Your task to perform on an android device: Open calendar and show me the fourth week of next month Image 0: 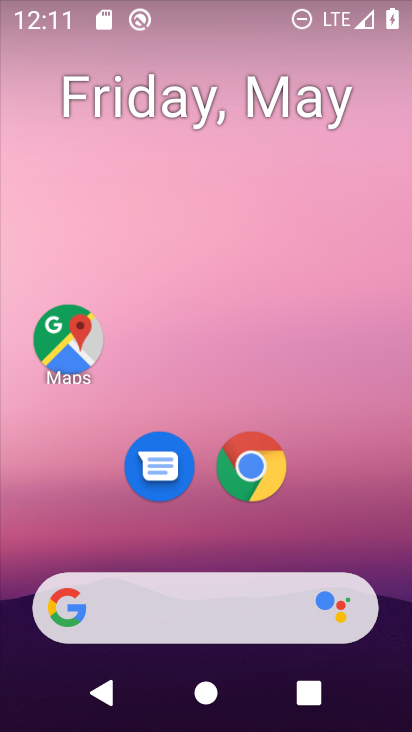
Step 0: drag from (328, 601) to (343, 16)
Your task to perform on an android device: Open calendar and show me the fourth week of next month Image 1: 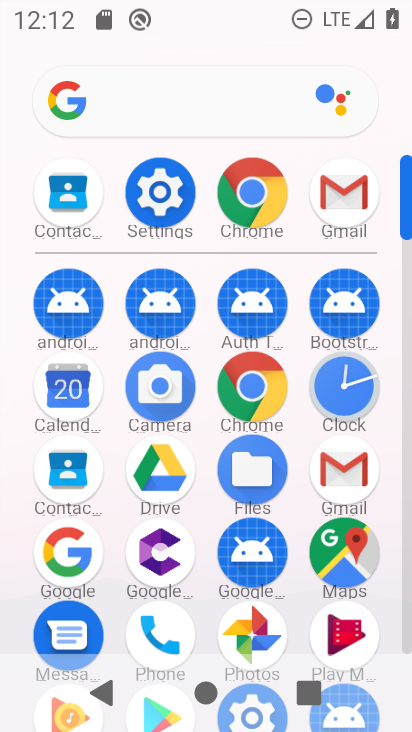
Step 1: click (79, 391)
Your task to perform on an android device: Open calendar and show me the fourth week of next month Image 2: 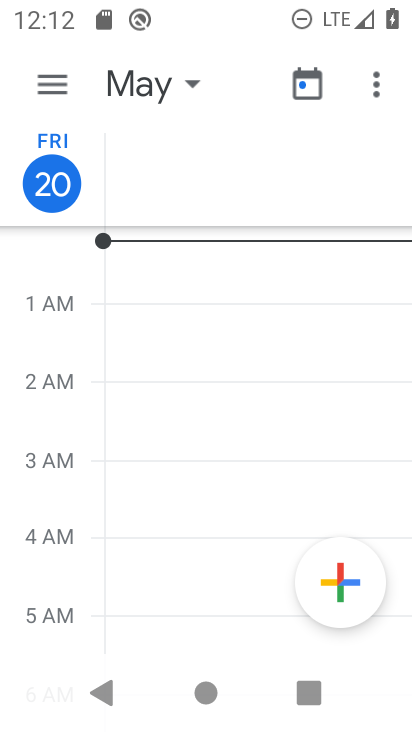
Step 2: click (199, 82)
Your task to perform on an android device: Open calendar and show me the fourth week of next month Image 3: 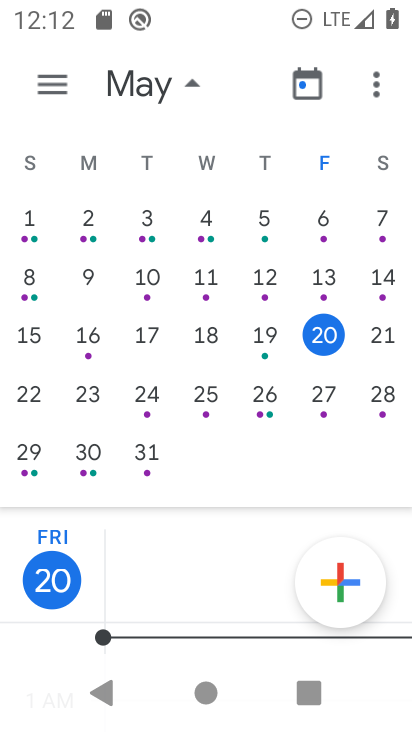
Step 3: drag from (376, 335) to (2, 368)
Your task to perform on an android device: Open calendar and show me the fourth week of next month Image 4: 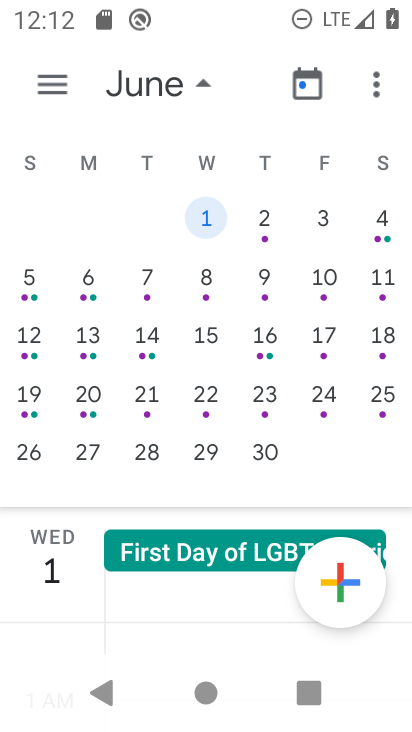
Step 4: click (269, 391)
Your task to perform on an android device: Open calendar and show me the fourth week of next month Image 5: 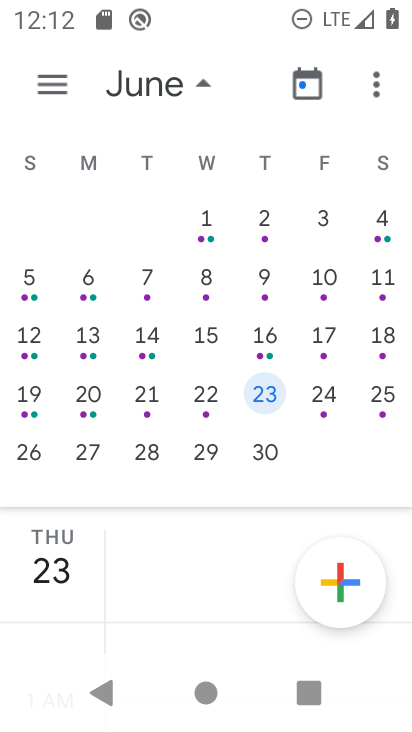
Step 5: task complete